Your task to perform on an android device: toggle show notifications on the lock screen Image 0: 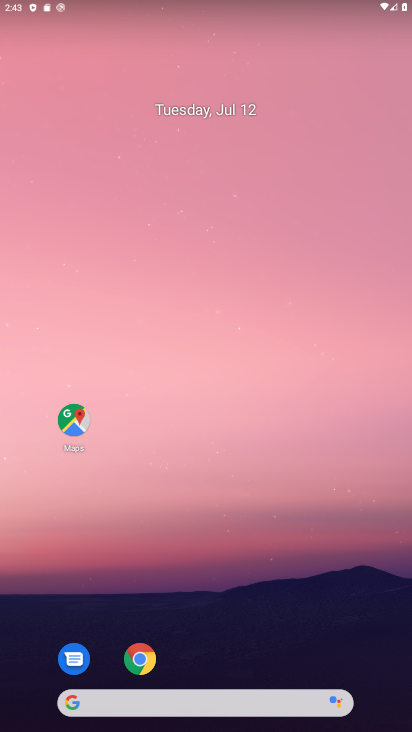
Step 0: drag from (318, 628) to (254, 158)
Your task to perform on an android device: toggle show notifications on the lock screen Image 1: 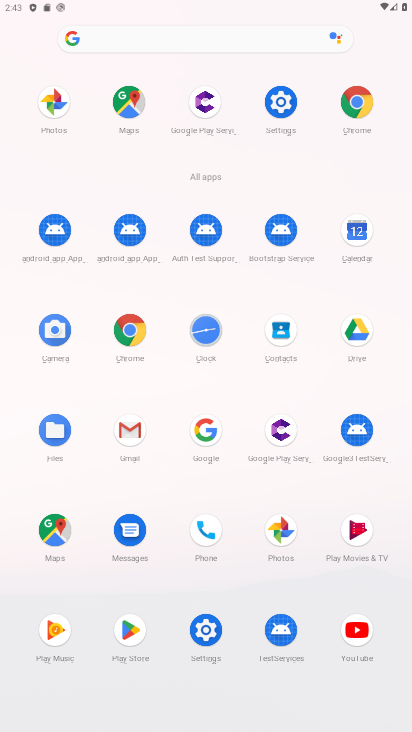
Step 1: click (212, 624)
Your task to perform on an android device: toggle show notifications on the lock screen Image 2: 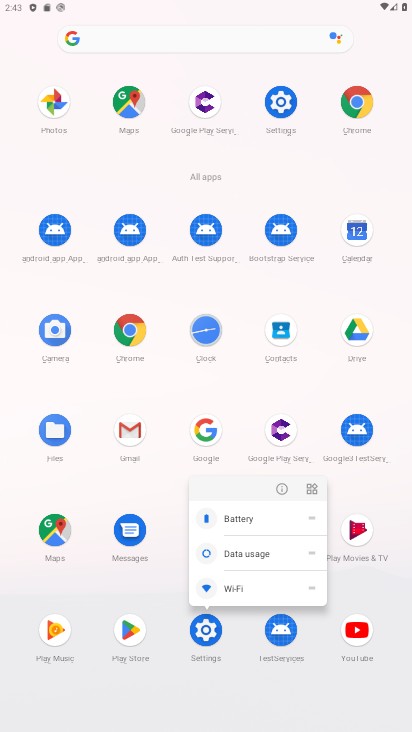
Step 2: click (212, 624)
Your task to perform on an android device: toggle show notifications on the lock screen Image 3: 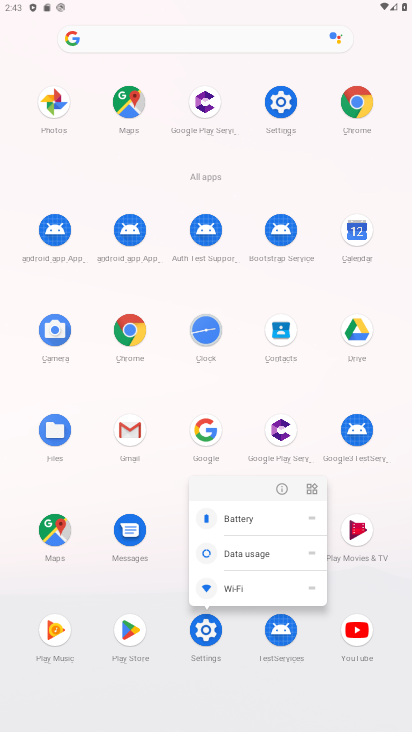
Step 3: click (213, 623)
Your task to perform on an android device: toggle show notifications on the lock screen Image 4: 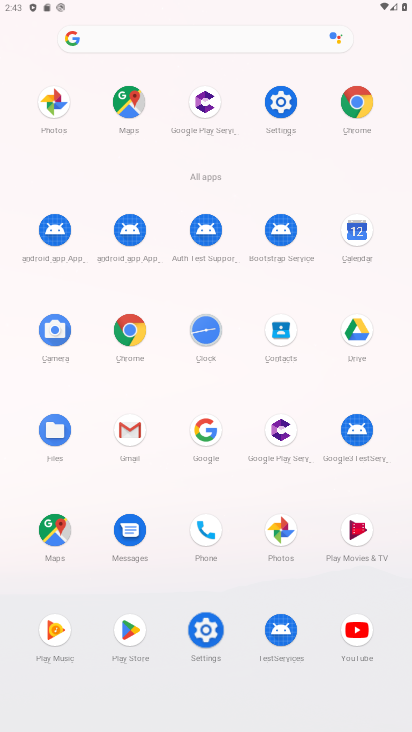
Step 4: click (216, 627)
Your task to perform on an android device: toggle show notifications on the lock screen Image 5: 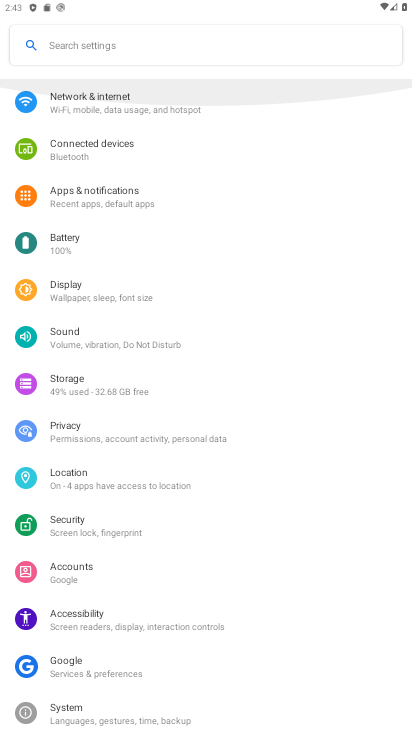
Step 5: click (209, 633)
Your task to perform on an android device: toggle show notifications on the lock screen Image 6: 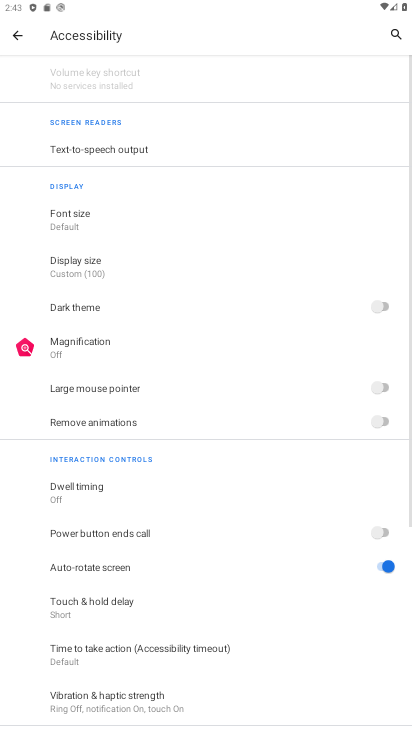
Step 6: click (15, 35)
Your task to perform on an android device: toggle show notifications on the lock screen Image 7: 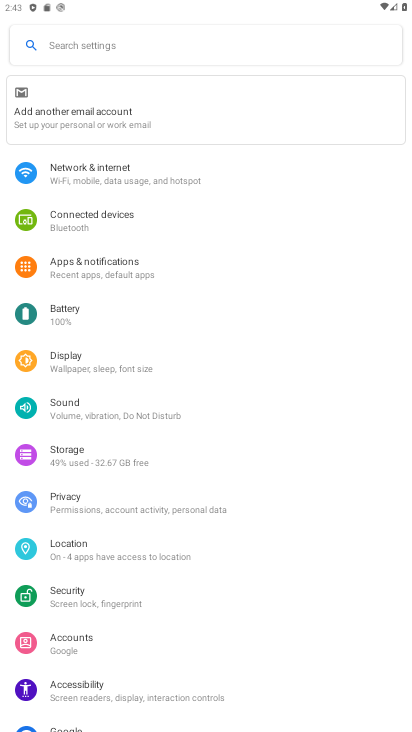
Step 7: click (108, 263)
Your task to perform on an android device: toggle show notifications on the lock screen Image 8: 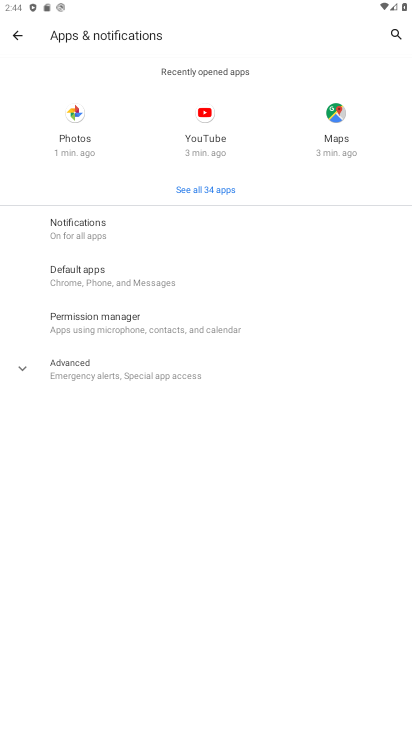
Step 8: click (84, 227)
Your task to perform on an android device: toggle show notifications on the lock screen Image 9: 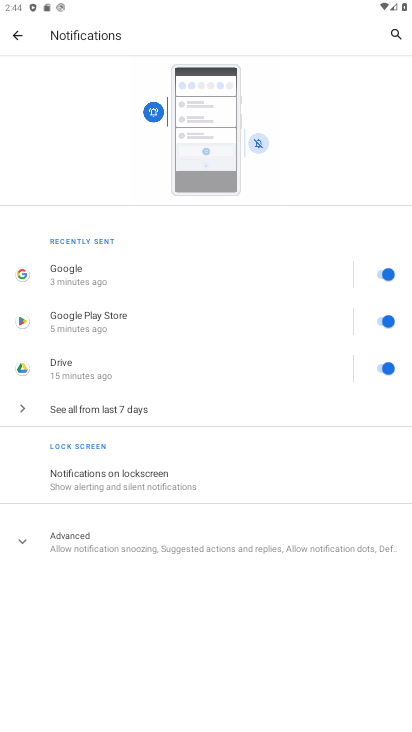
Step 9: click (90, 481)
Your task to perform on an android device: toggle show notifications on the lock screen Image 10: 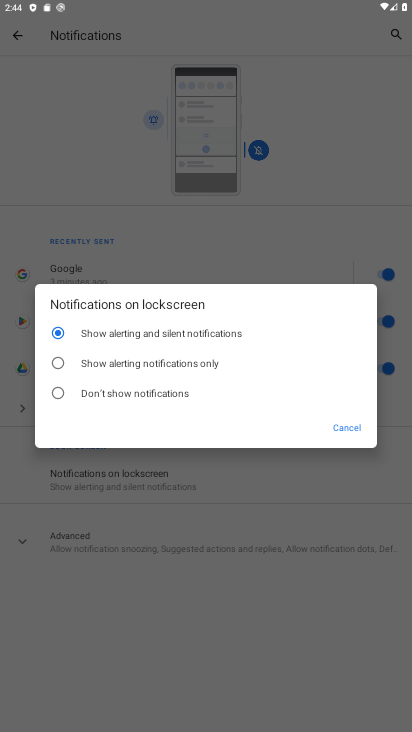
Step 10: click (55, 362)
Your task to perform on an android device: toggle show notifications on the lock screen Image 11: 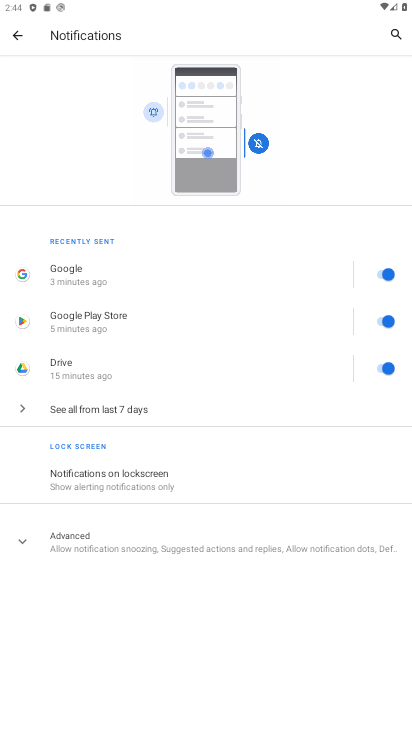
Step 11: task complete